Your task to perform on an android device: turn on data saver in the chrome app Image 0: 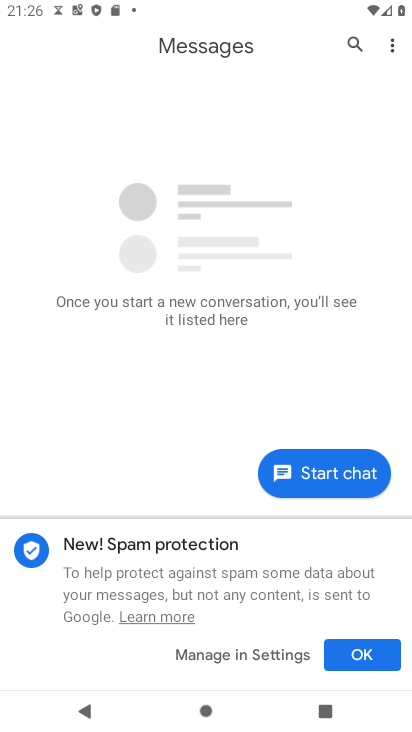
Step 0: press home button
Your task to perform on an android device: turn on data saver in the chrome app Image 1: 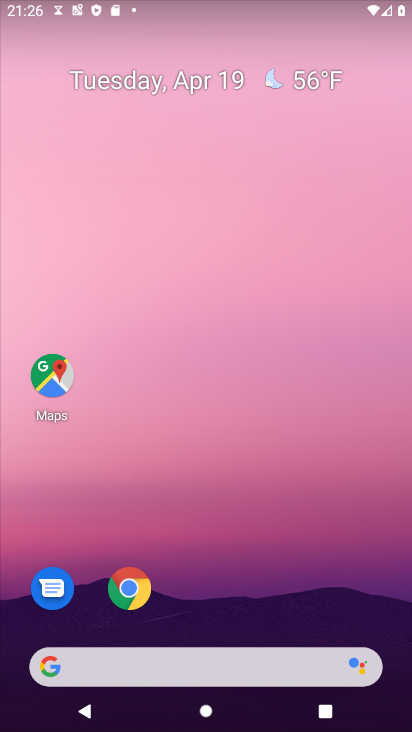
Step 1: click (131, 588)
Your task to perform on an android device: turn on data saver in the chrome app Image 2: 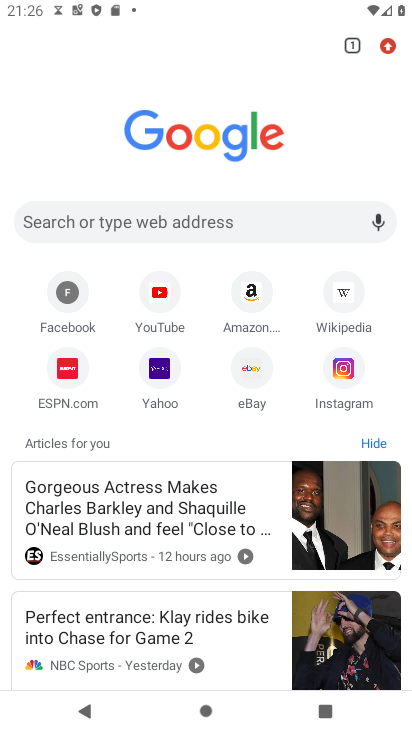
Step 2: click (387, 47)
Your task to perform on an android device: turn on data saver in the chrome app Image 3: 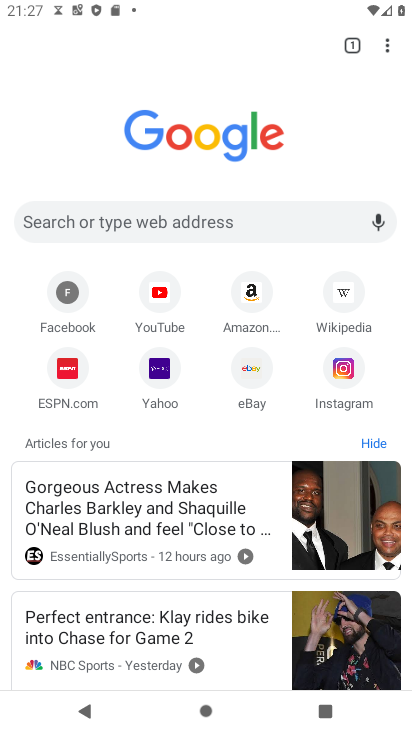
Step 3: click (389, 46)
Your task to perform on an android device: turn on data saver in the chrome app Image 4: 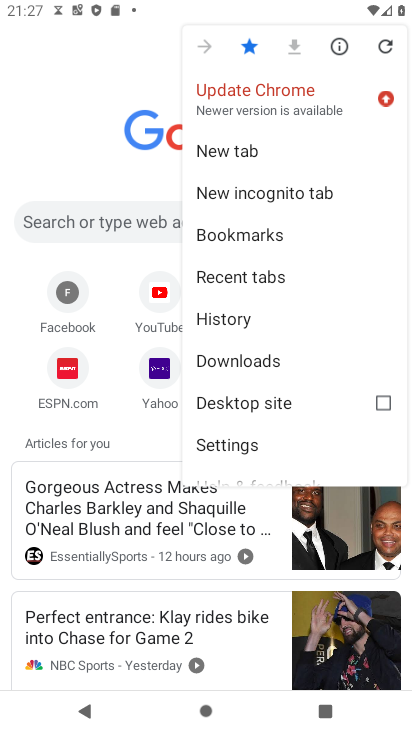
Step 4: click (236, 448)
Your task to perform on an android device: turn on data saver in the chrome app Image 5: 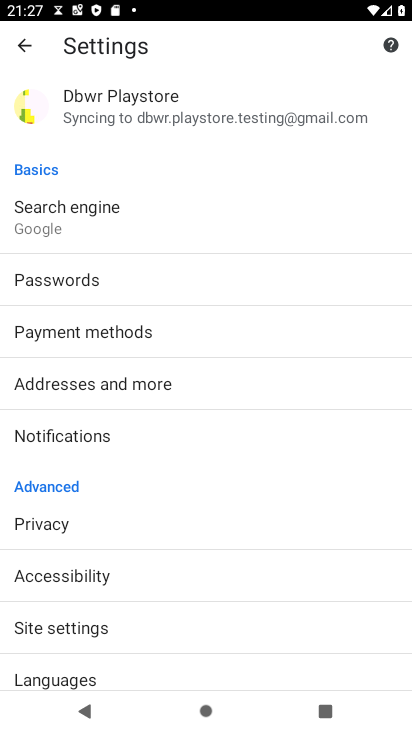
Step 5: drag from (116, 612) to (196, 490)
Your task to perform on an android device: turn on data saver in the chrome app Image 6: 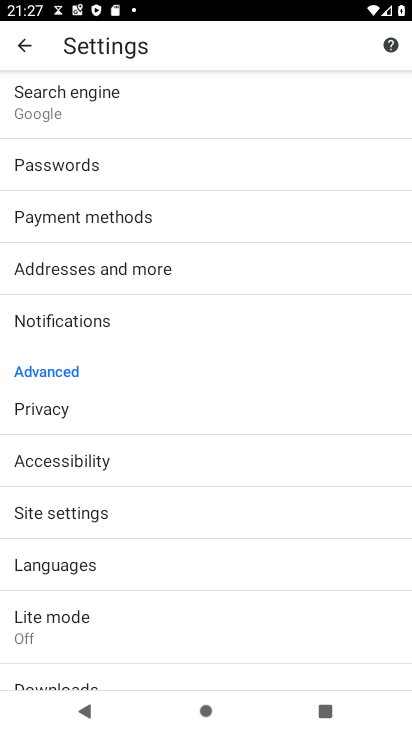
Step 6: click (72, 631)
Your task to perform on an android device: turn on data saver in the chrome app Image 7: 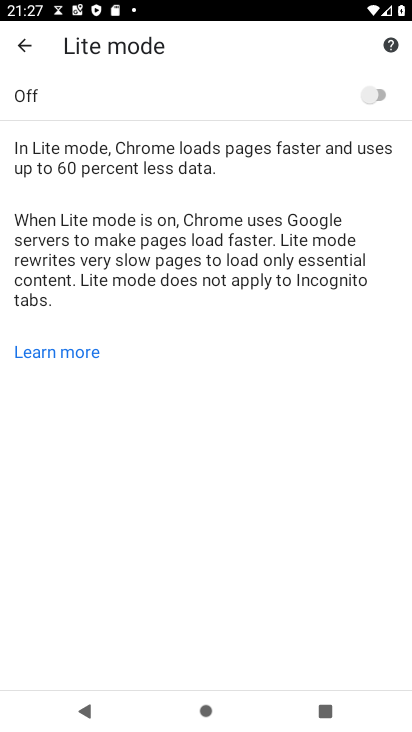
Step 7: click (379, 96)
Your task to perform on an android device: turn on data saver in the chrome app Image 8: 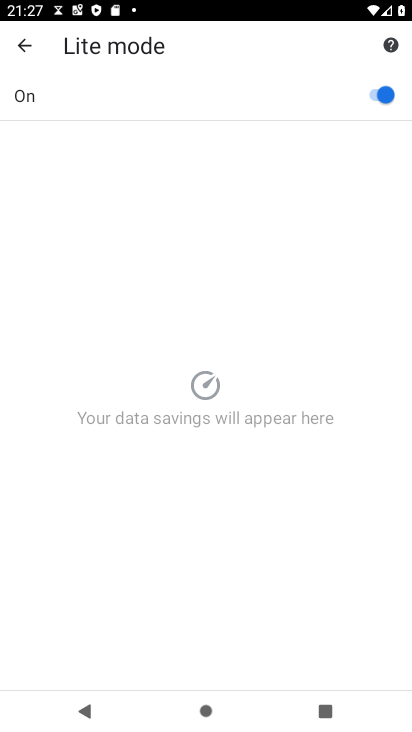
Step 8: task complete